Your task to perform on an android device: turn pop-ups off in chrome Image 0: 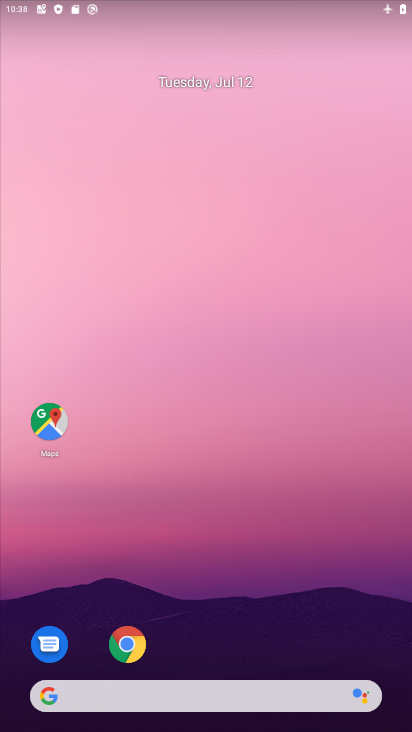
Step 0: drag from (334, 571) to (410, 0)
Your task to perform on an android device: turn pop-ups off in chrome Image 1: 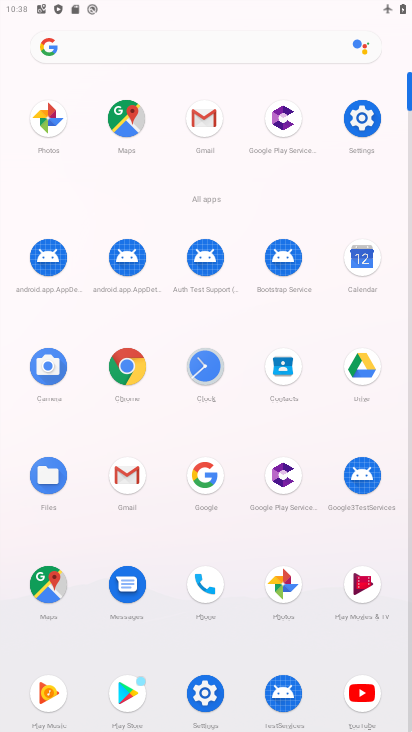
Step 1: click (135, 368)
Your task to perform on an android device: turn pop-ups off in chrome Image 2: 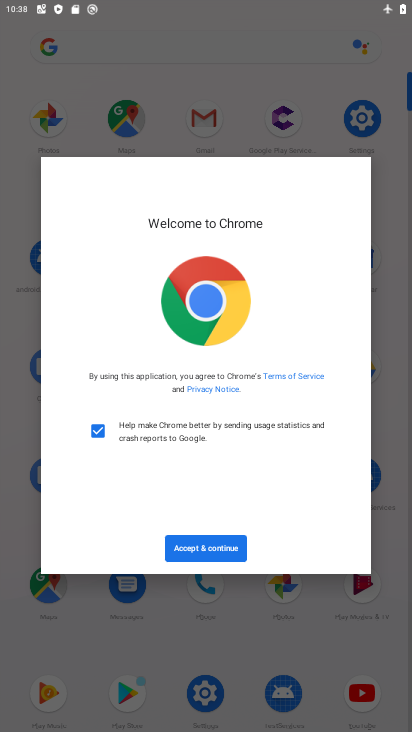
Step 2: click (217, 545)
Your task to perform on an android device: turn pop-ups off in chrome Image 3: 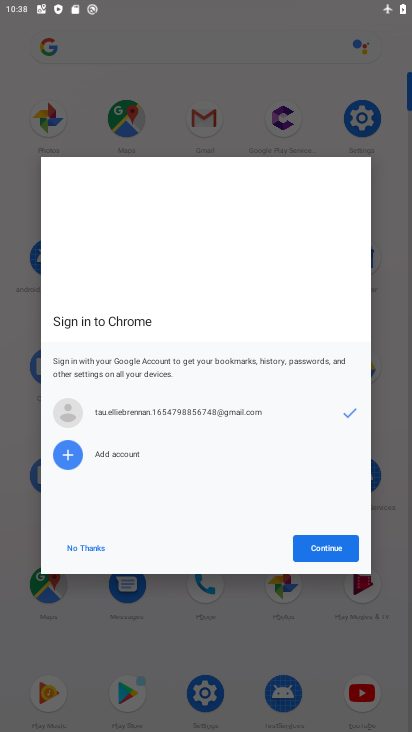
Step 3: click (87, 546)
Your task to perform on an android device: turn pop-ups off in chrome Image 4: 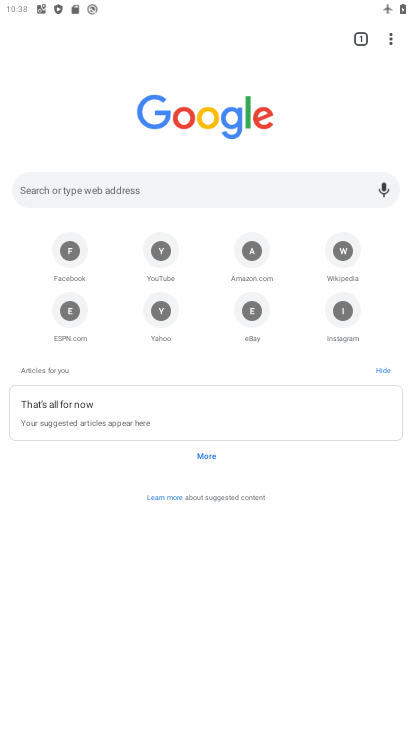
Step 4: drag from (395, 48) to (245, 315)
Your task to perform on an android device: turn pop-ups off in chrome Image 5: 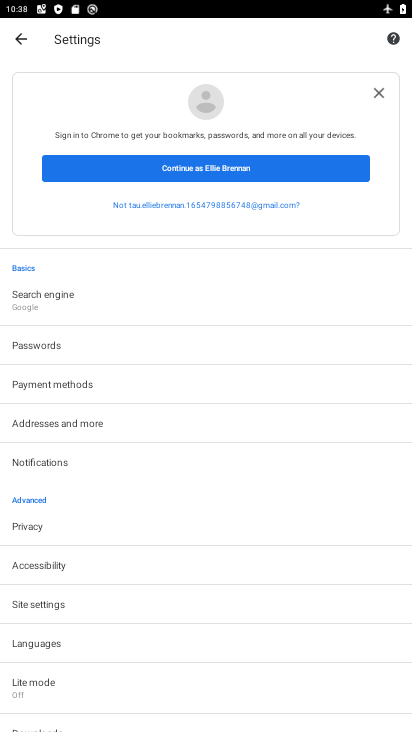
Step 5: drag from (79, 609) to (195, 215)
Your task to perform on an android device: turn pop-ups off in chrome Image 6: 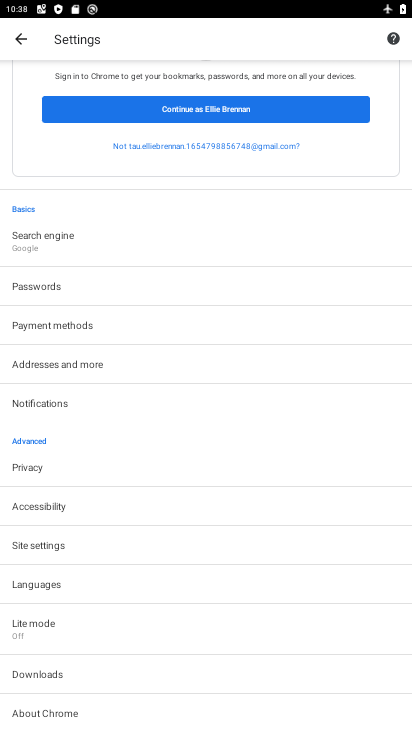
Step 6: click (38, 548)
Your task to perform on an android device: turn pop-ups off in chrome Image 7: 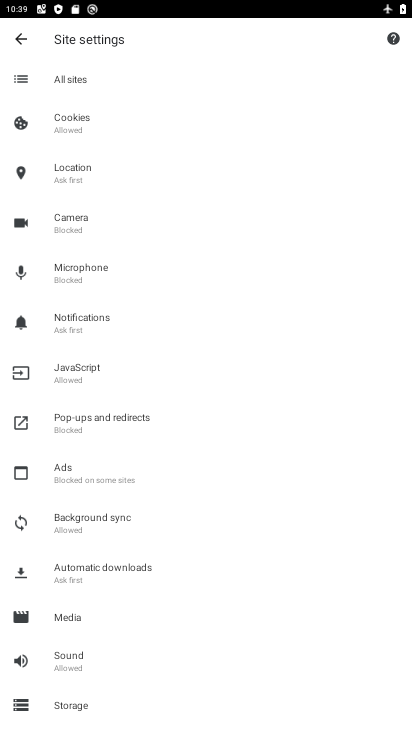
Step 7: click (74, 425)
Your task to perform on an android device: turn pop-ups off in chrome Image 8: 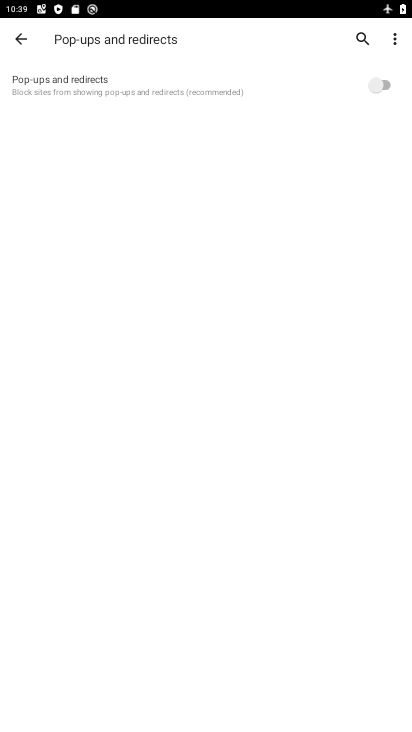
Step 8: task complete